Your task to perform on an android device: open device folders in google photos Image 0: 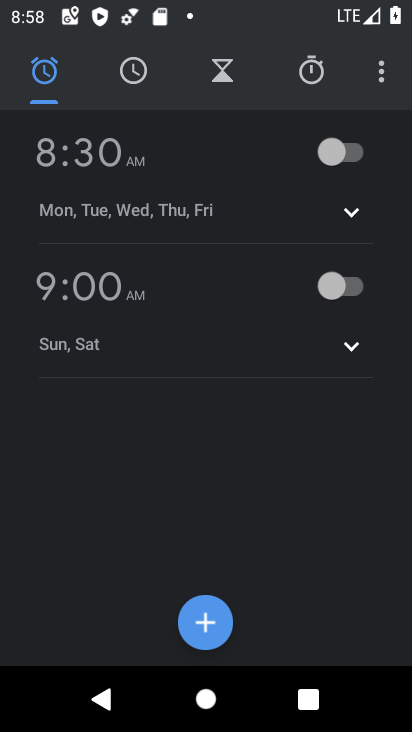
Step 0: press home button
Your task to perform on an android device: open device folders in google photos Image 1: 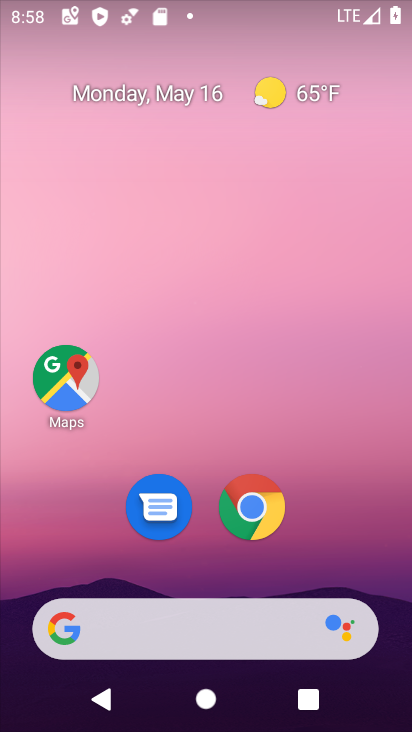
Step 1: drag from (232, 577) to (227, 87)
Your task to perform on an android device: open device folders in google photos Image 2: 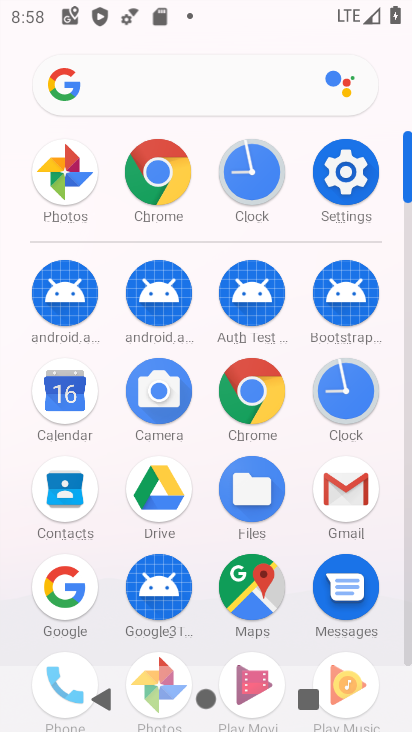
Step 2: click (72, 176)
Your task to perform on an android device: open device folders in google photos Image 3: 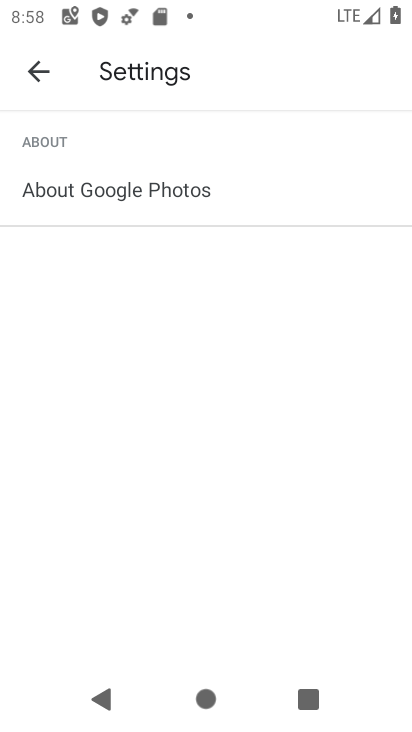
Step 3: click (34, 79)
Your task to perform on an android device: open device folders in google photos Image 4: 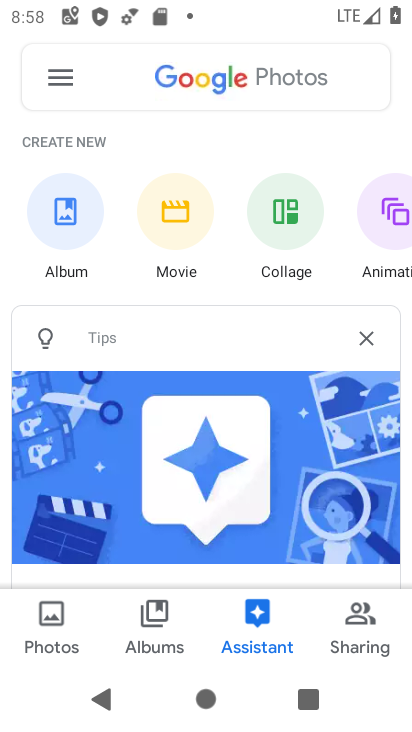
Step 4: click (44, 68)
Your task to perform on an android device: open device folders in google photos Image 5: 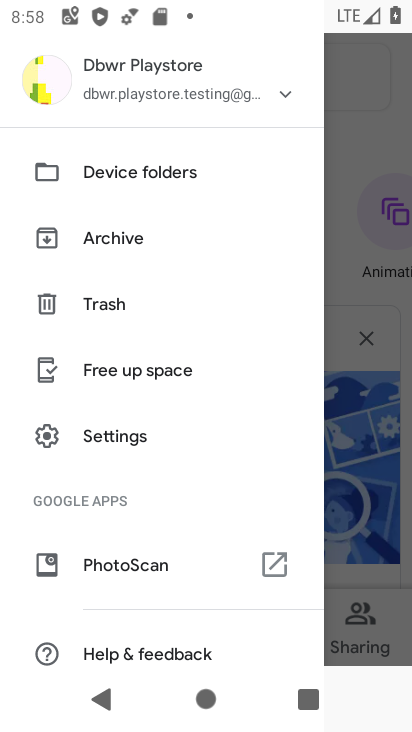
Step 5: click (123, 161)
Your task to perform on an android device: open device folders in google photos Image 6: 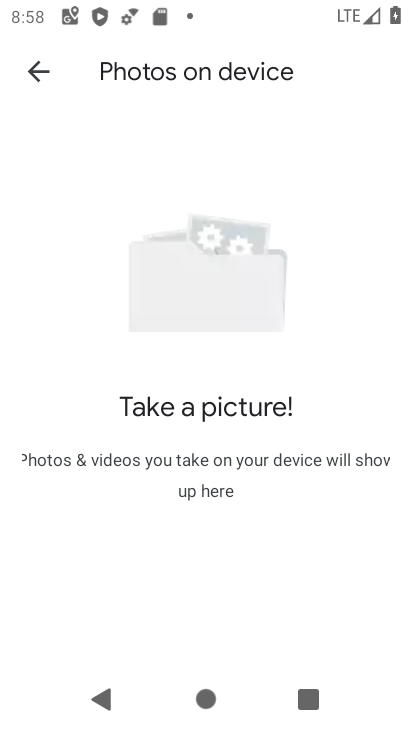
Step 6: task complete